Your task to perform on an android device: Go to Yahoo.com Image 0: 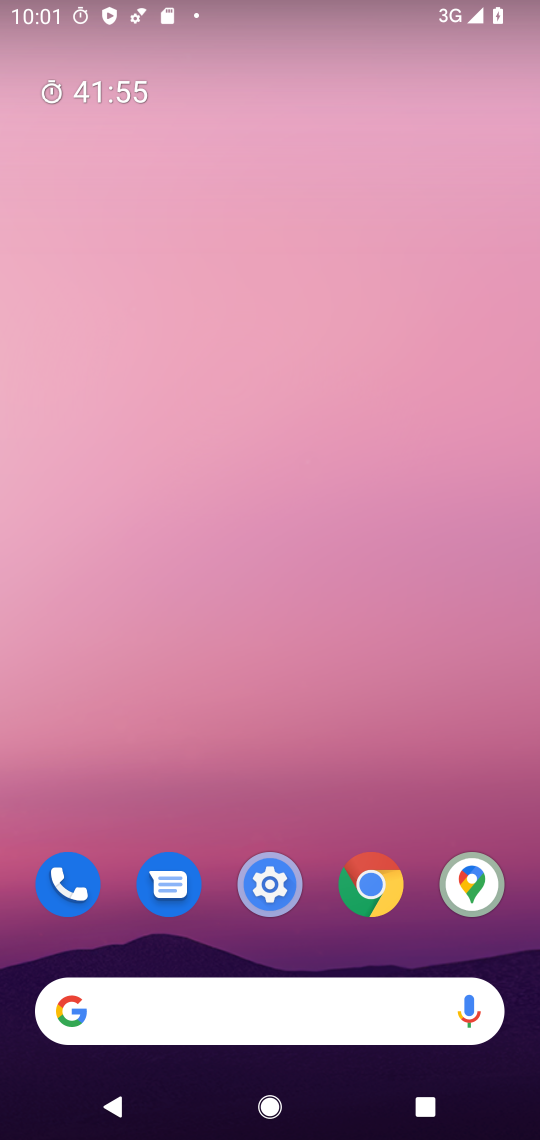
Step 0: click (346, 892)
Your task to perform on an android device: Go to Yahoo.com Image 1: 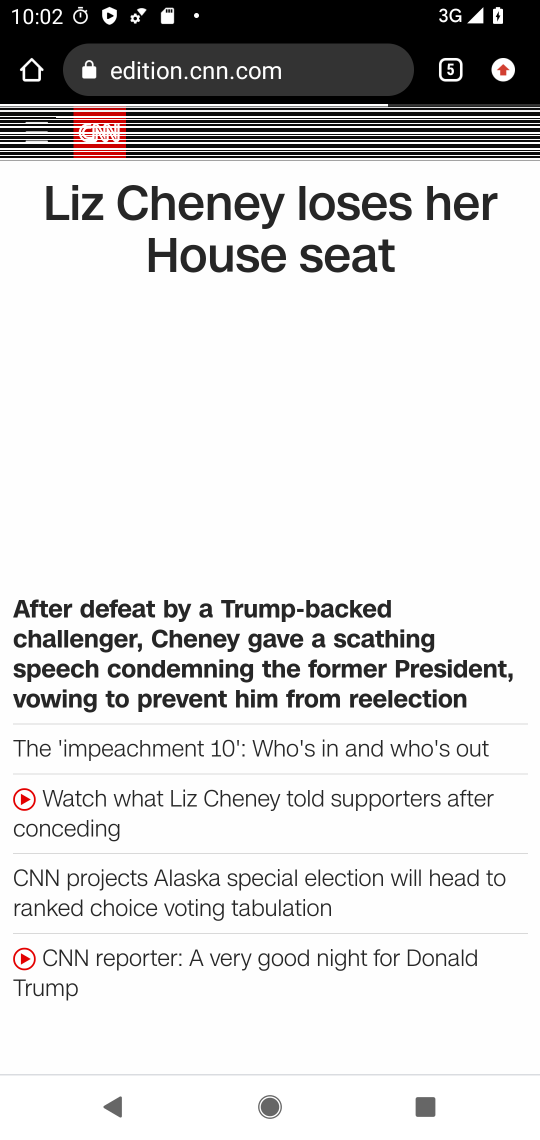
Step 1: click (447, 68)
Your task to perform on an android device: Go to Yahoo.com Image 2: 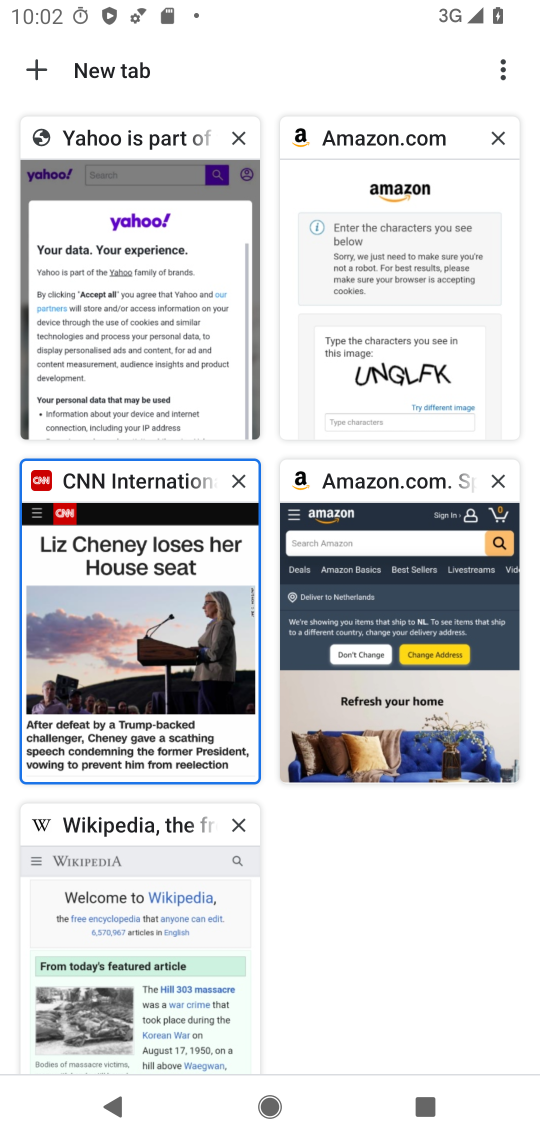
Step 2: click (149, 235)
Your task to perform on an android device: Go to Yahoo.com Image 3: 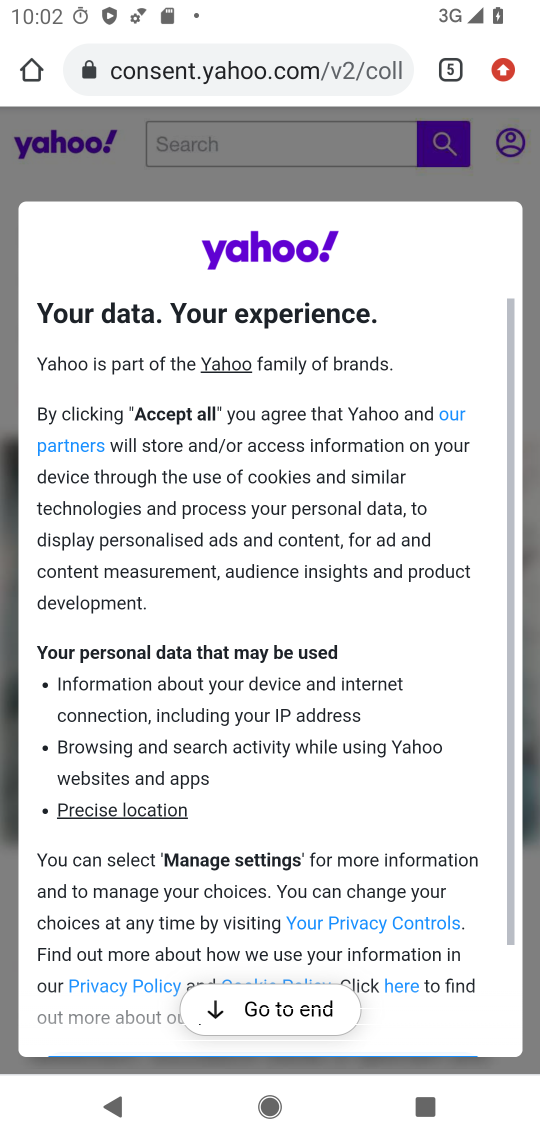
Step 3: task complete